Your task to perform on an android device: Check the news Image 0: 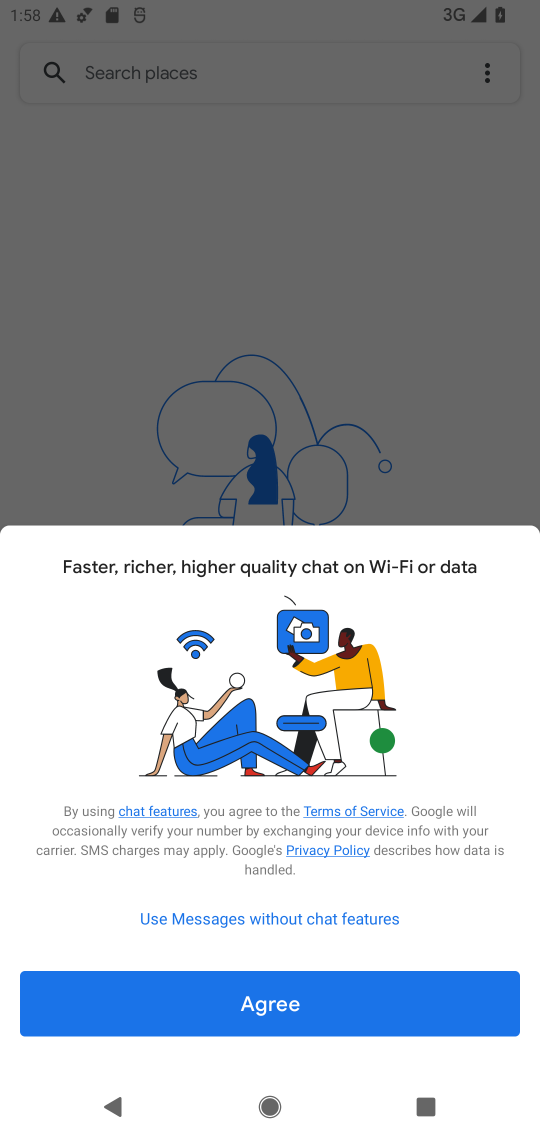
Step 0: press home button
Your task to perform on an android device: Check the news Image 1: 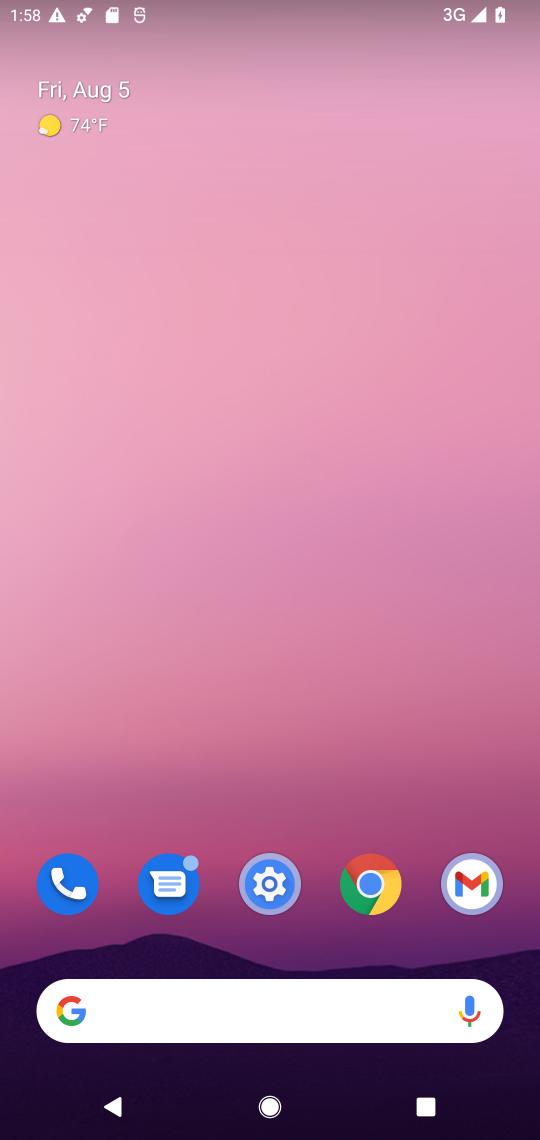
Step 1: drag from (424, 797) to (171, 37)
Your task to perform on an android device: Check the news Image 2: 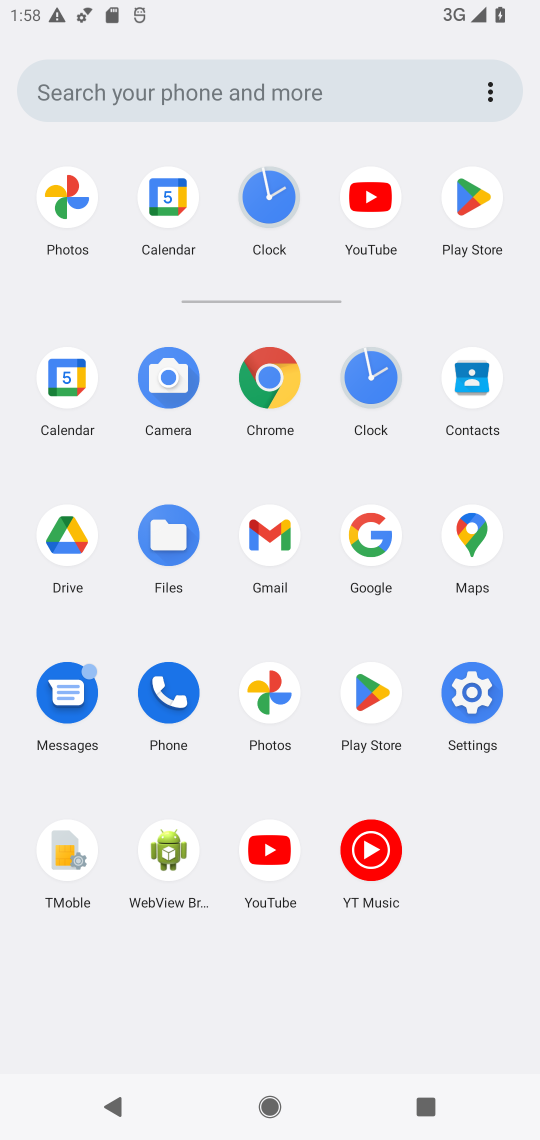
Step 2: click (387, 546)
Your task to perform on an android device: Check the news Image 3: 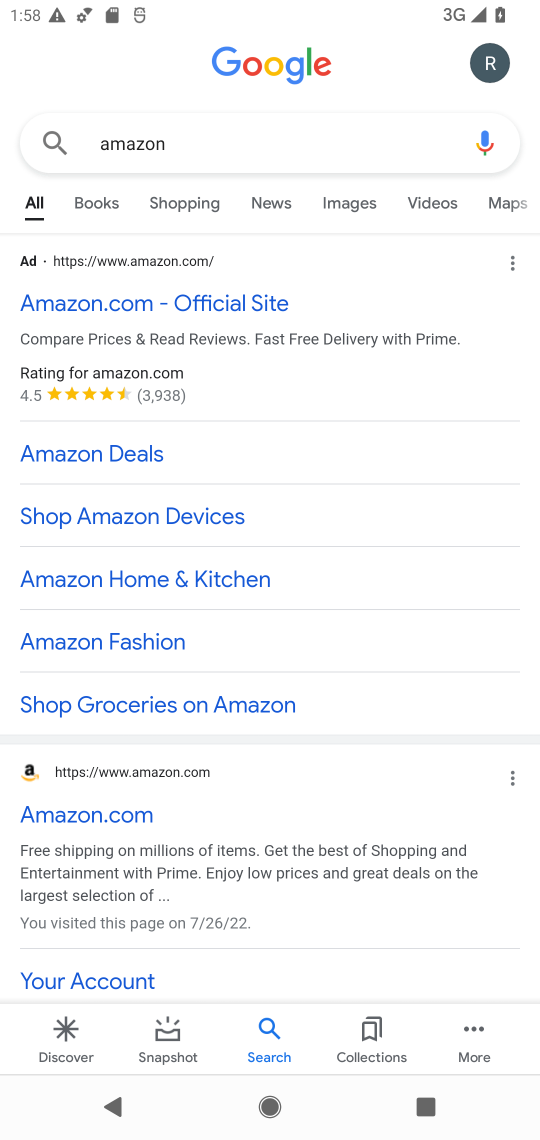
Step 3: press back button
Your task to perform on an android device: Check the news Image 4: 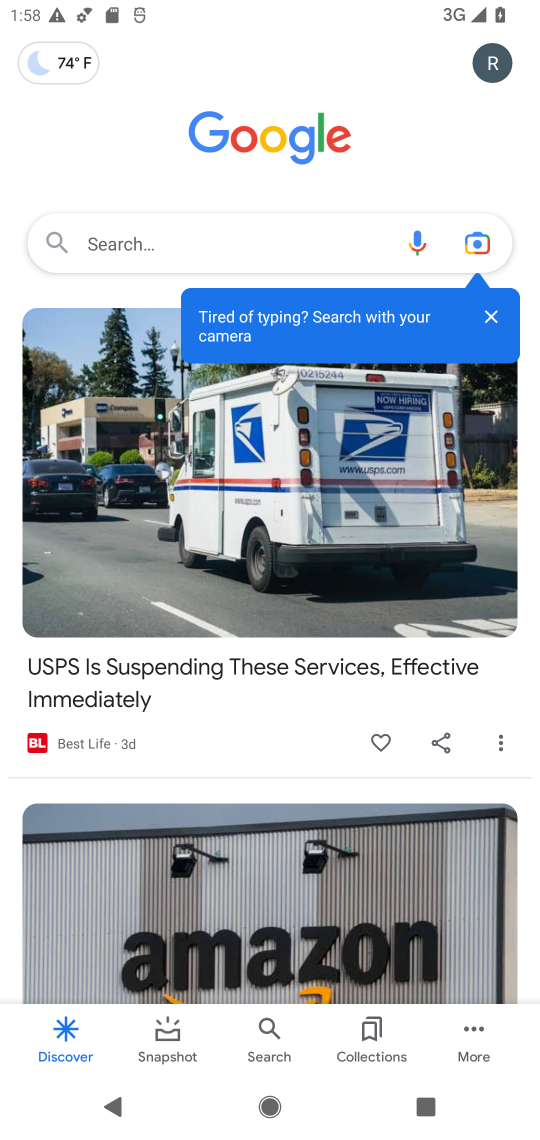
Step 4: click (128, 248)
Your task to perform on an android device: Check the news Image 5: 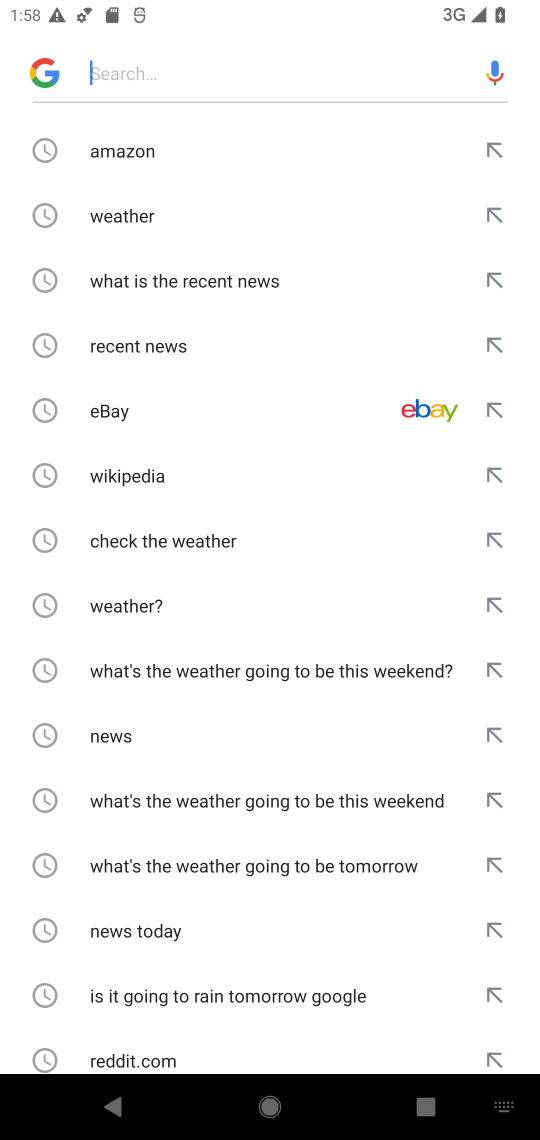
Step 5: click (149, 745)
Your task to perform on an android device: Check the news Image 6: 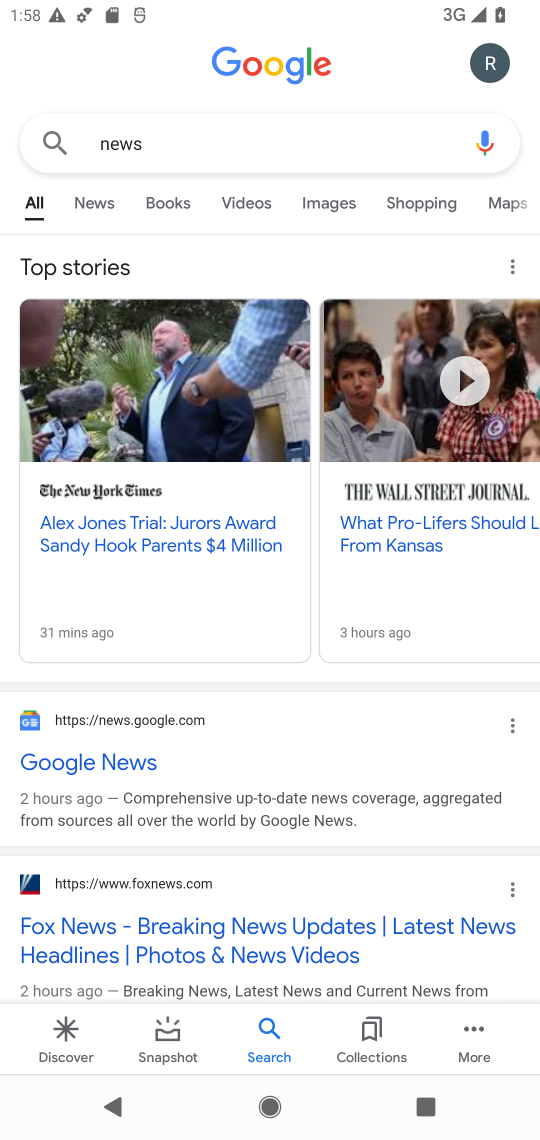
Step 6: task complete